Your task to perform on an android device: search for starred emails in the gmail app Image 0: 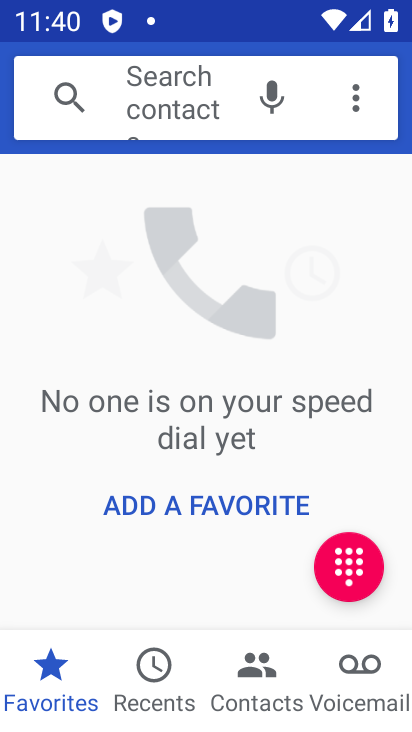
Step 0: press home button
Your task to perform on an android device: search for starred emails in the gmail app Image 1: 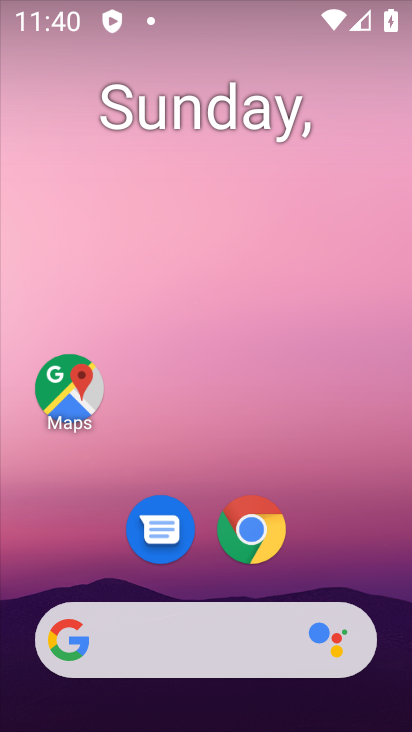
Step 1: drag from (383, 582) to (371, 246)
Your task to perform on an android device: search for starred emails in the gmail app Image 2: 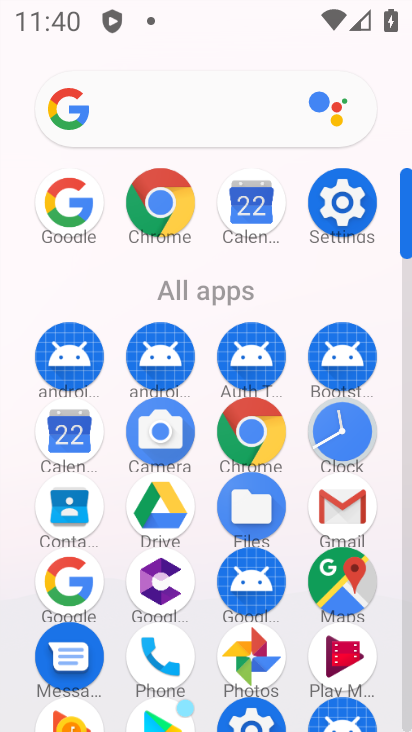
Step 2: click (356, 527)
Your task to perform on an android device: search for starred emails in the gmail app Image 3: 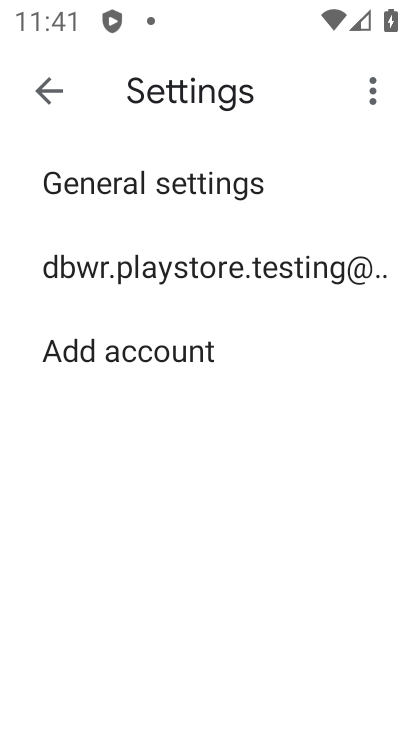
Step 3: click (63, 107)
Your task to perform on an android device: search for starred emails in the gmail app Image 4: 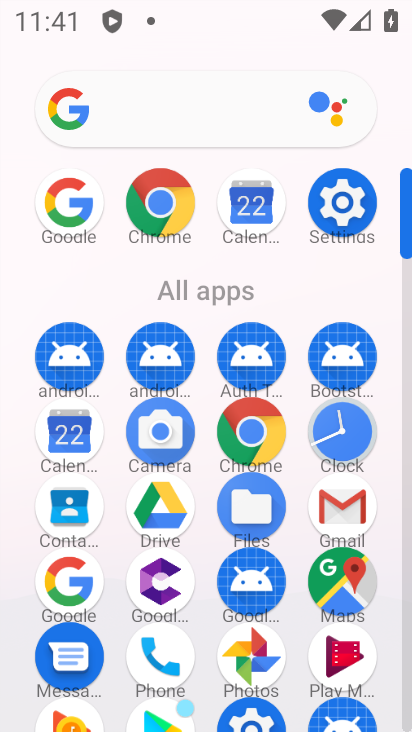
Step 4: click (350, 510)
Your task to perform on an android device: search for starred emails in the gmail app Image 5: 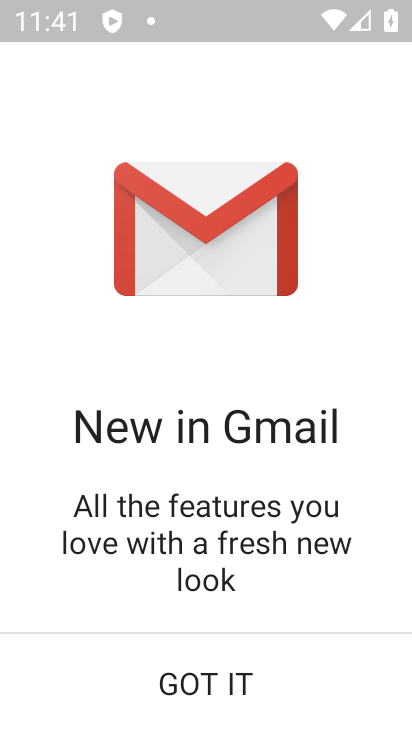
Step 5: click (288, 678)
Your task to perform on an android device: search for starred emails in the gmail app Image 6: 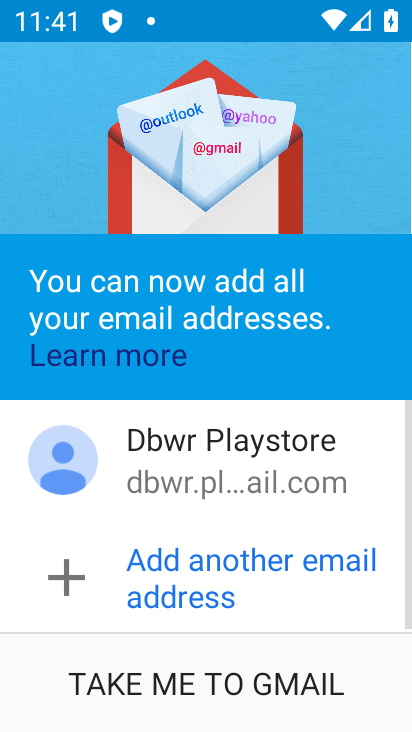
Step 6: click (290, 678)
Your task to perform on an android device: search for starred emails in the gmail app Image 7: 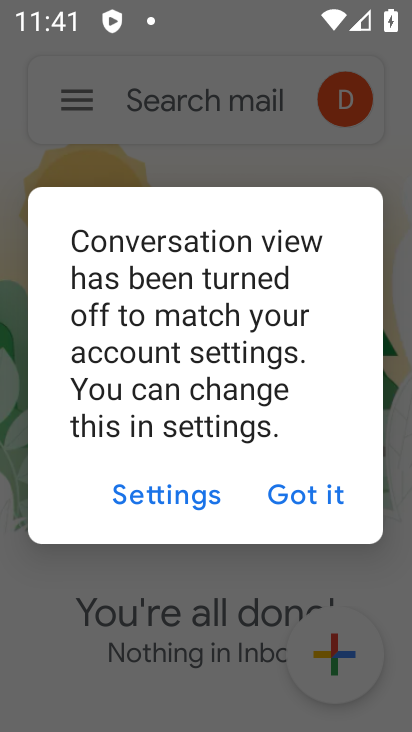
Step 7: click (294, 529)
Your task to perform on an android device: search for starred emails in the gmail app Image 8: 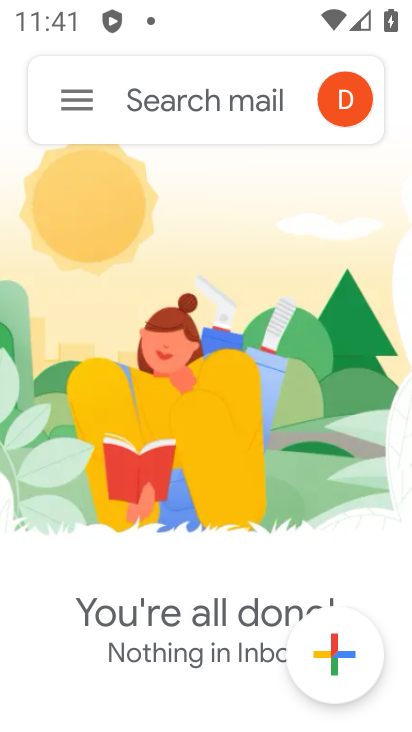
Step 8: click (83, 100)
Your task to perform on an android device: search for starred emails in the gmail app Image 9: 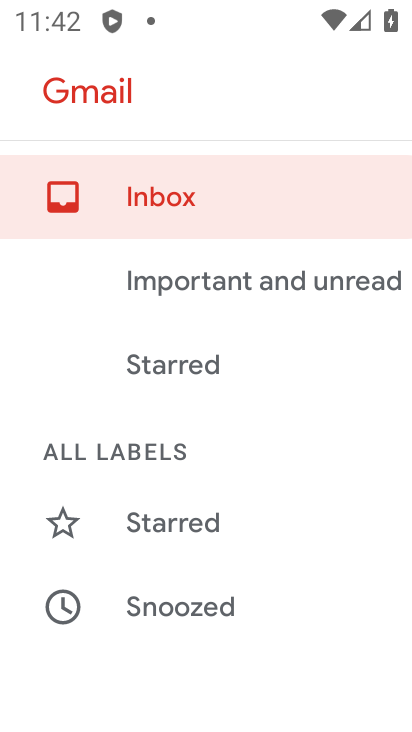
Step 9: drag from (283, 483) to (278, 333)
Your task to perform on an android device: search for starred emails in the gmail app Image 10: 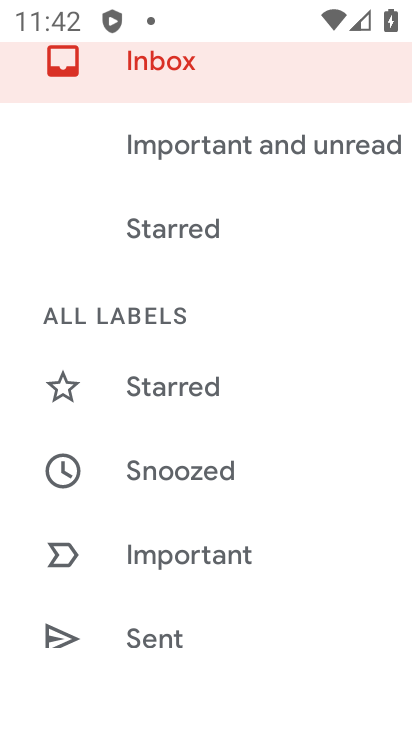
Step 10: click (212, 238)
Your task to perform on an android device: search for starred emails in the gmail app Image 11: 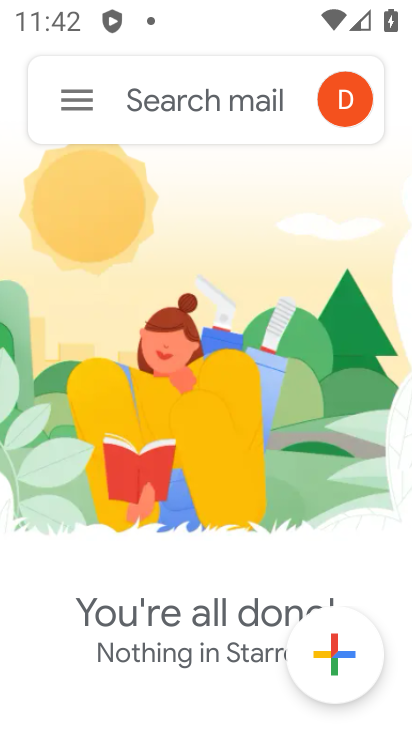
Step 11: task complete